Your task to perform on an android device: toggle javascript in the chrome app Image 0: 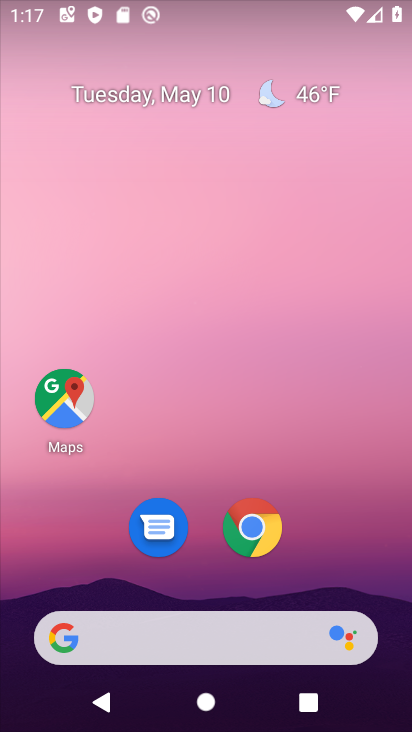
Step 0: click (255, 536)
Your task to perform on an android device: toggle javascript in the chrome app Image 1: 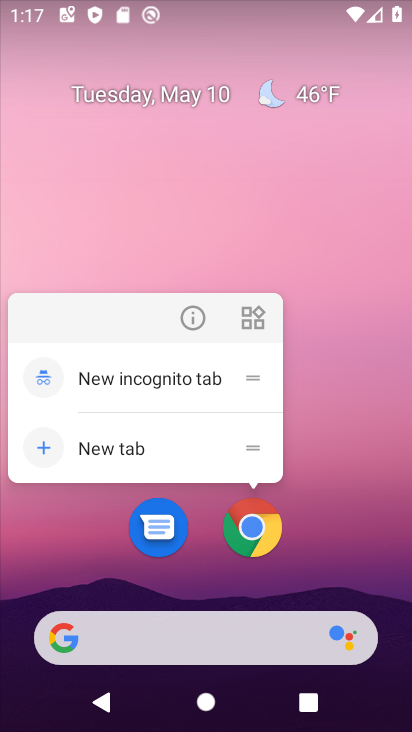
Step 1: click (329, 529)
Your task to perform on an android device: toggle javascript in the chrome app Image 2: 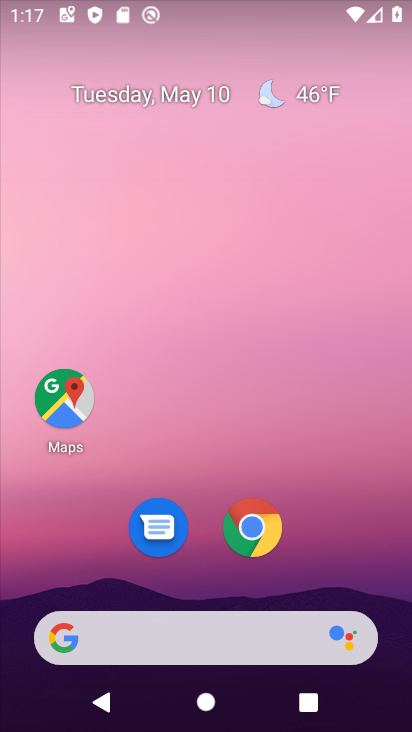
Step 2: click (260, 520)
Your task to perform on an android device: toggle javascript in the chrome app Image 3: 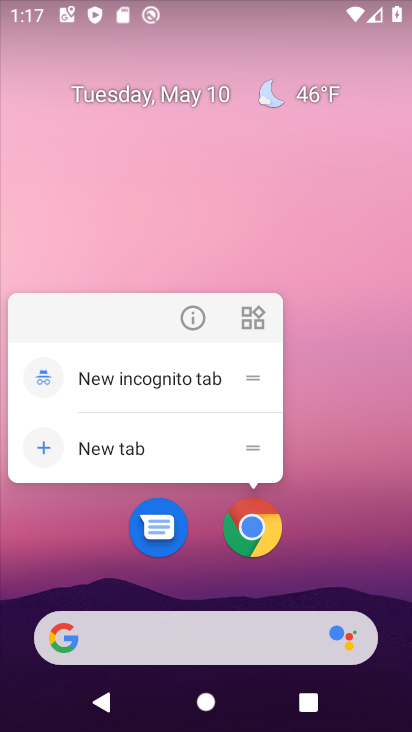
Step 3: click (254, 529)
Your task to perform on an android device: toggle javascript in the chrome app Image 4: 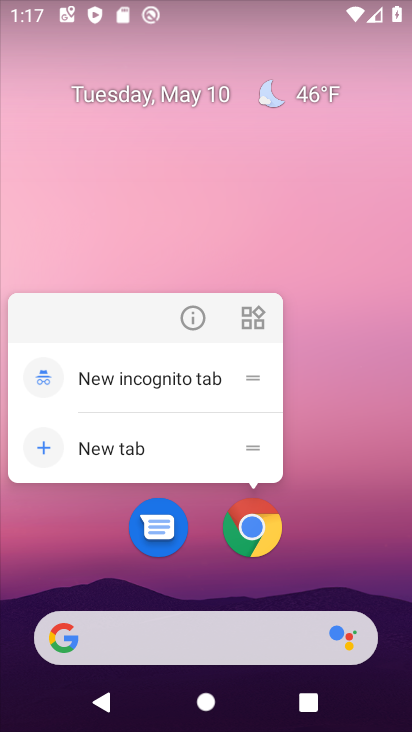
Step 4: click (254, 529)
Your task to perform on an android device: toggle javascript in the chrome app Image 5: 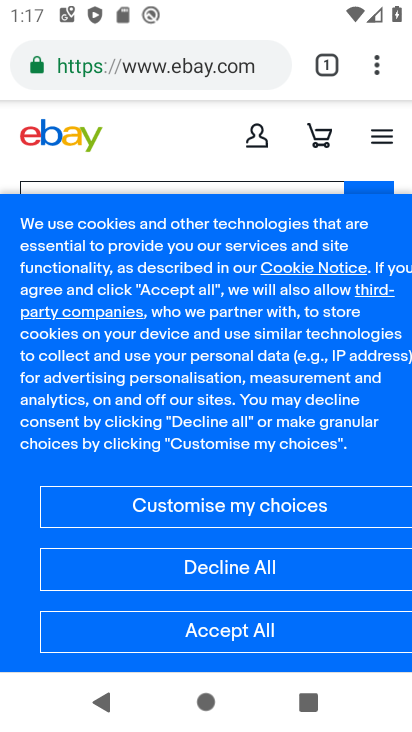
Step 5: drag from (379, 68) to (171, 570)
Your task to perform on an android device: toggle javascript in the chrome app Image 6: 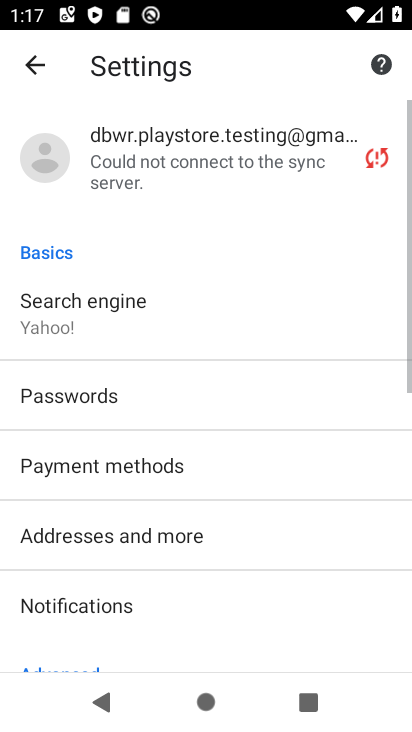
Step 6: drag from (171, 570) to (129, 155)
Your task to perform on an android device: toggle javascript in the chrome app Image 7: 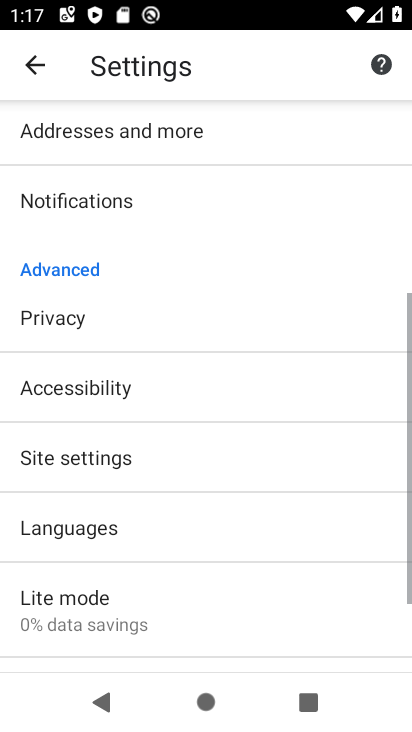
Step 7: click (98, 462)
Your task to perform on an android device: toggle javascript in the chrome app Image 8: 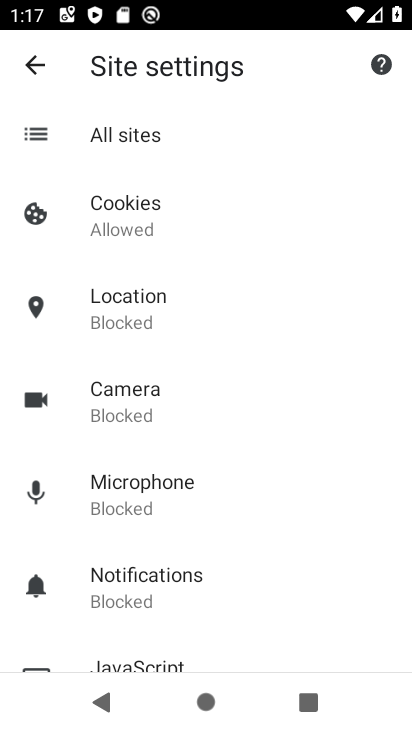
Step 8: drag from (230, 577) to (228, 391)
Your task to perform on an android device: toggle javascript in the chrome app Image 9: 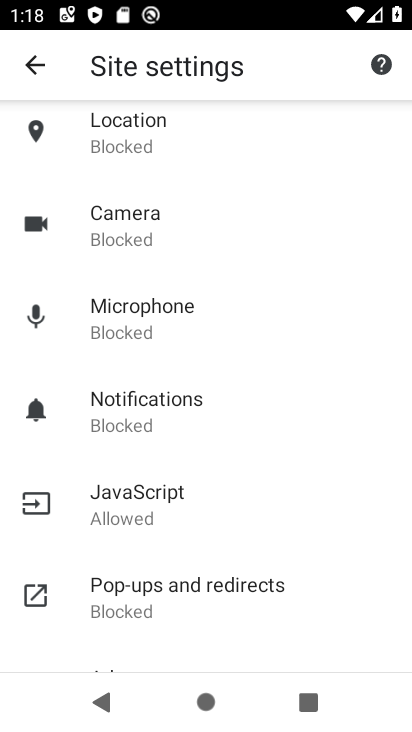
Step 9: click (126, 513)
Your task to perform on an android device: toggle javascript in the chrome app Image 10: 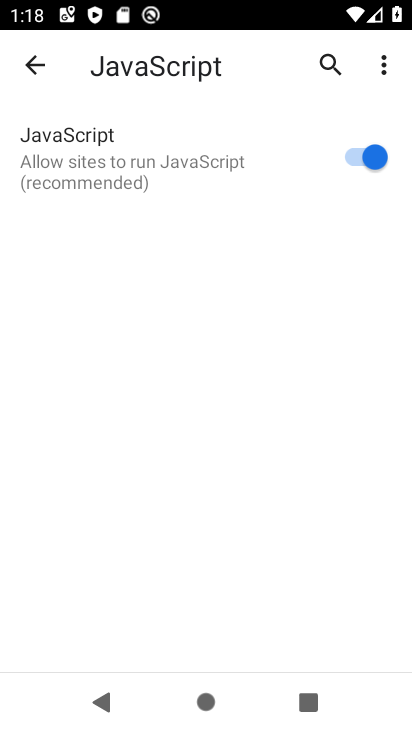
Step 10: click (377, 150)
Your task to perform on an android device: toggle javascript in the chrome app Image 11: 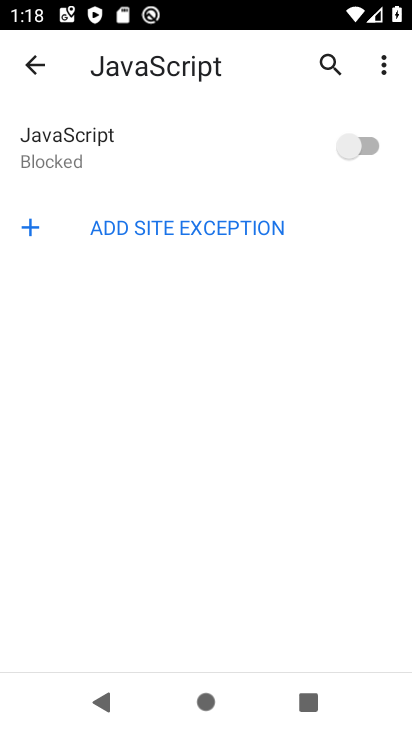
Step 11: task complete